Your task to perform on an android device: View the shopping cart on amazon.com. Image 0: 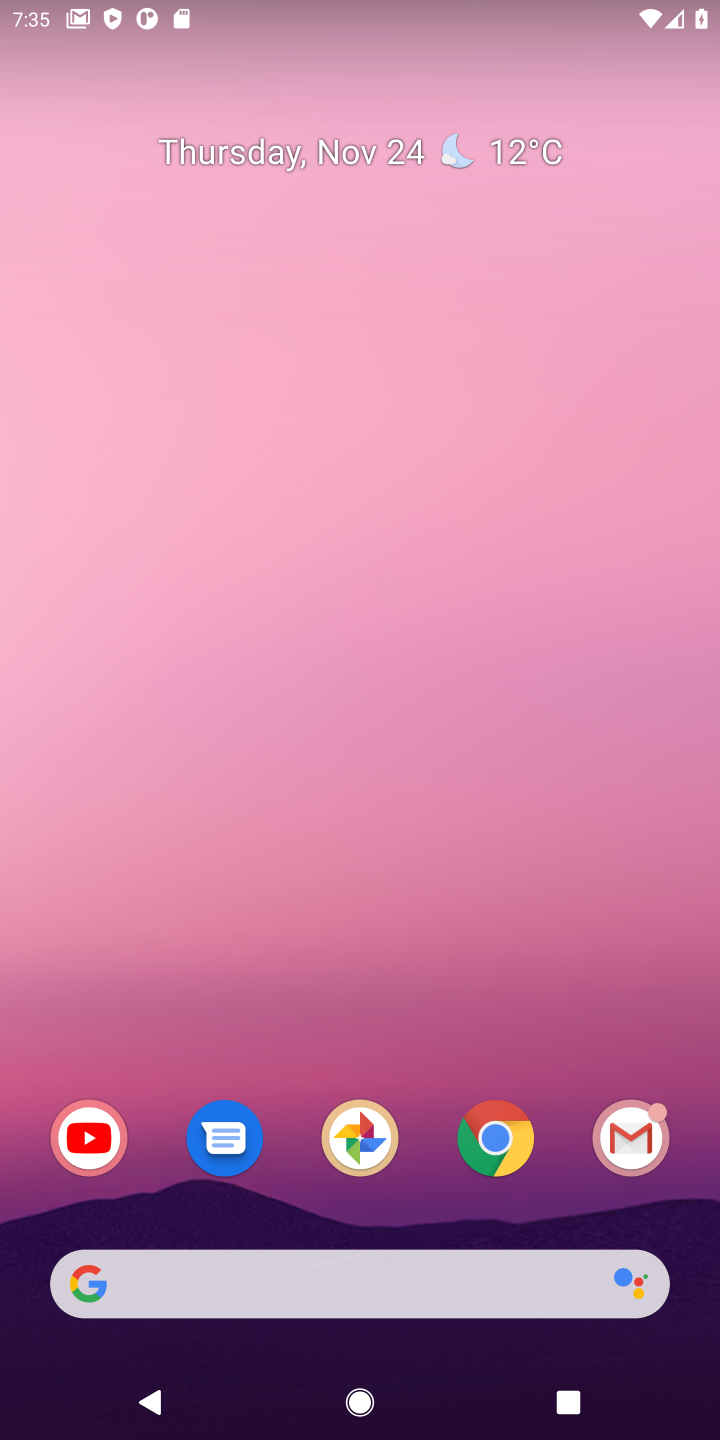
Step 0: click (493, 1126)
Your task to perform on an android device: View the shopping cart on amazon.com. Image 1: 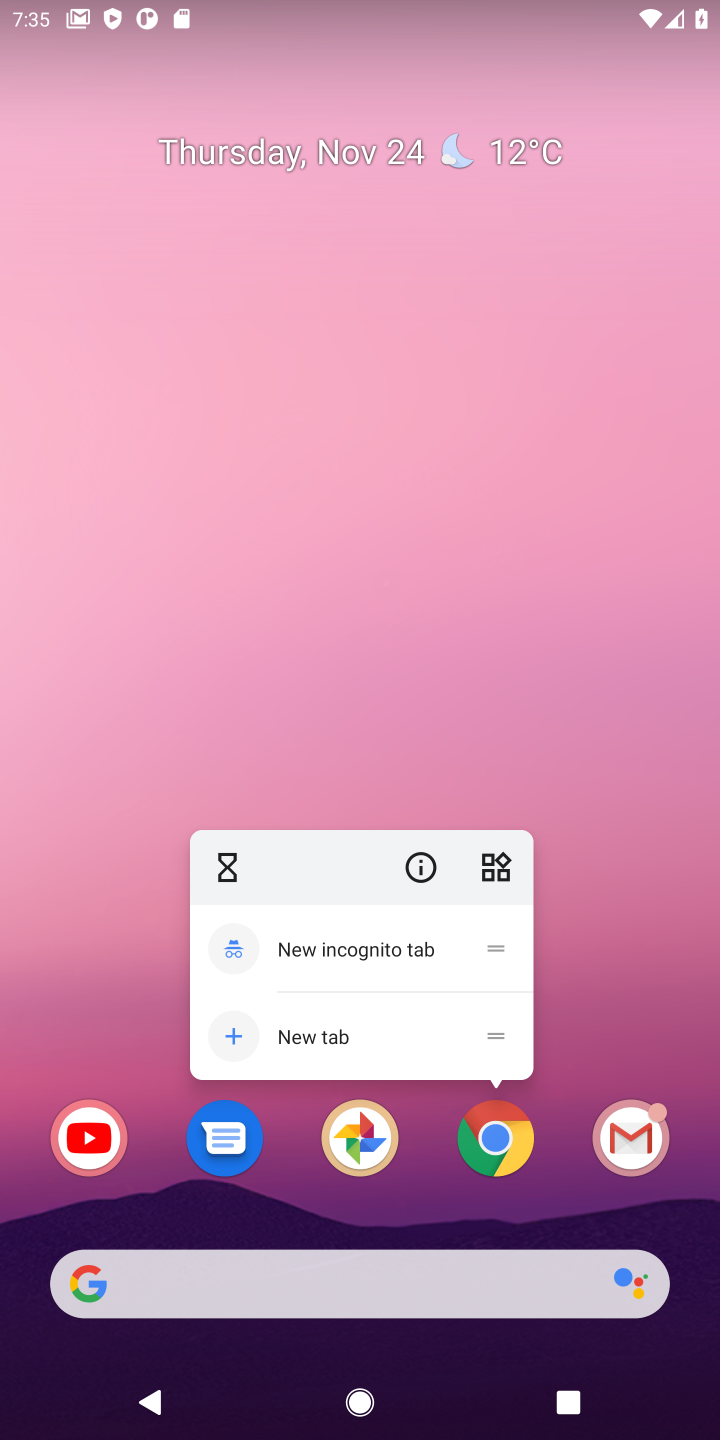
Step 1: click (493, 1126)
Your task to perform on an android device: View the shopping cart on amazon.com. Image 2: 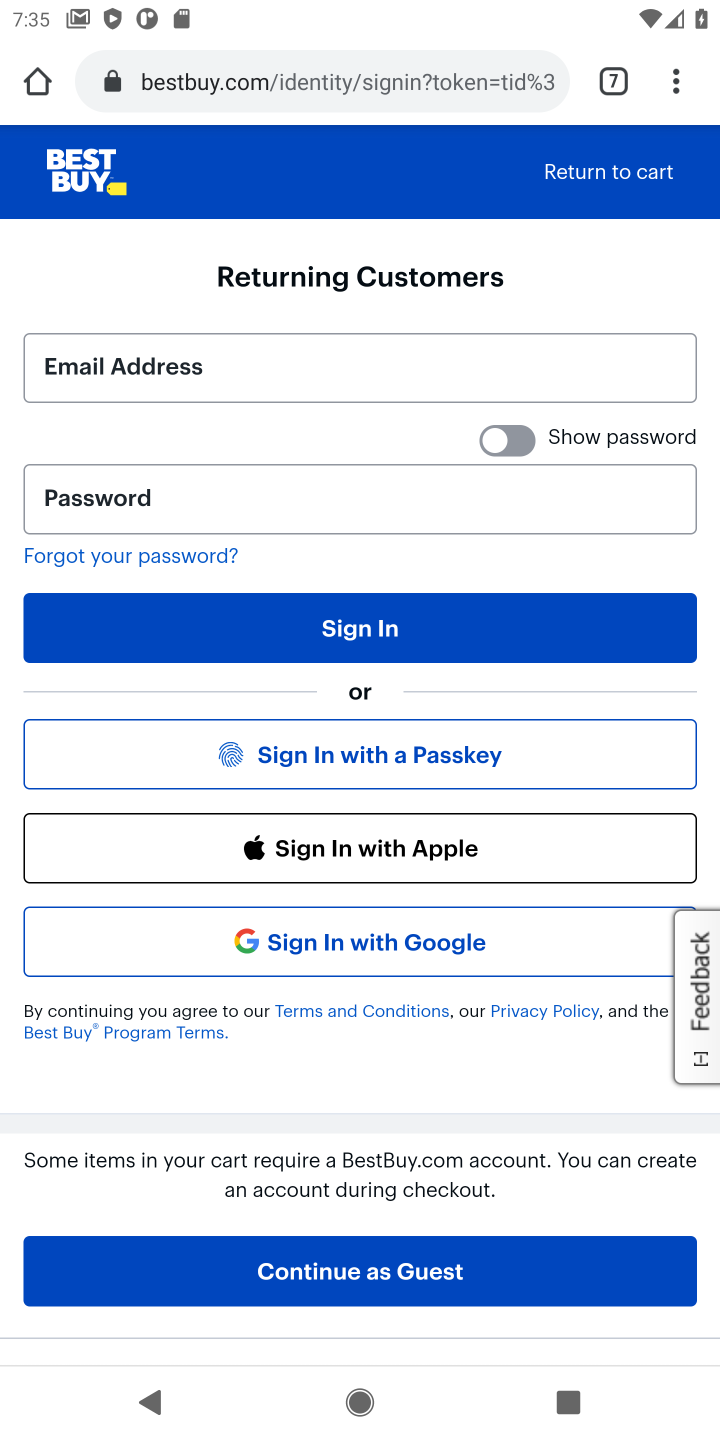
Step 2: click (610, 74)
Your task to perform on an android device: View the shopping cart on amazon.com. Image 3: 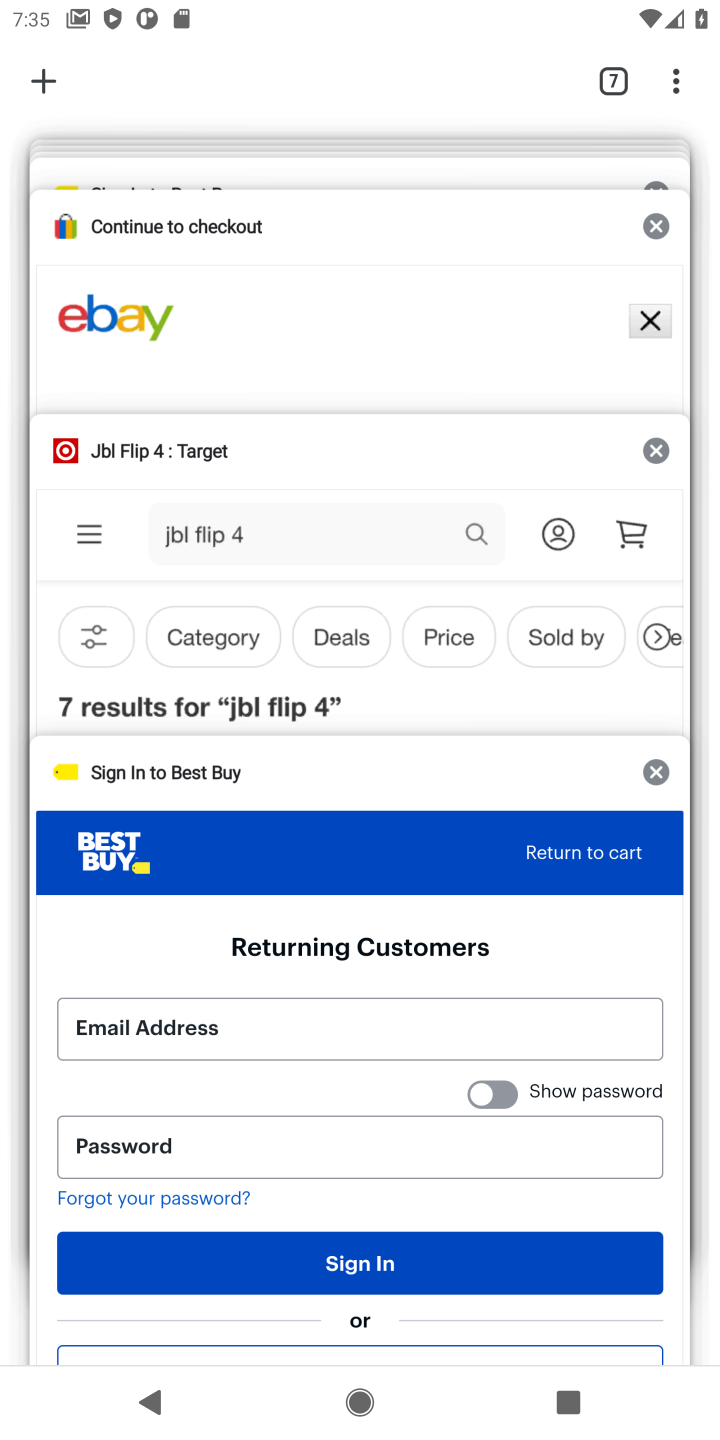
Step 3: click (37, 83)
Your task to perform on an android device: View the shopping cart on amazon.com. Image 4: 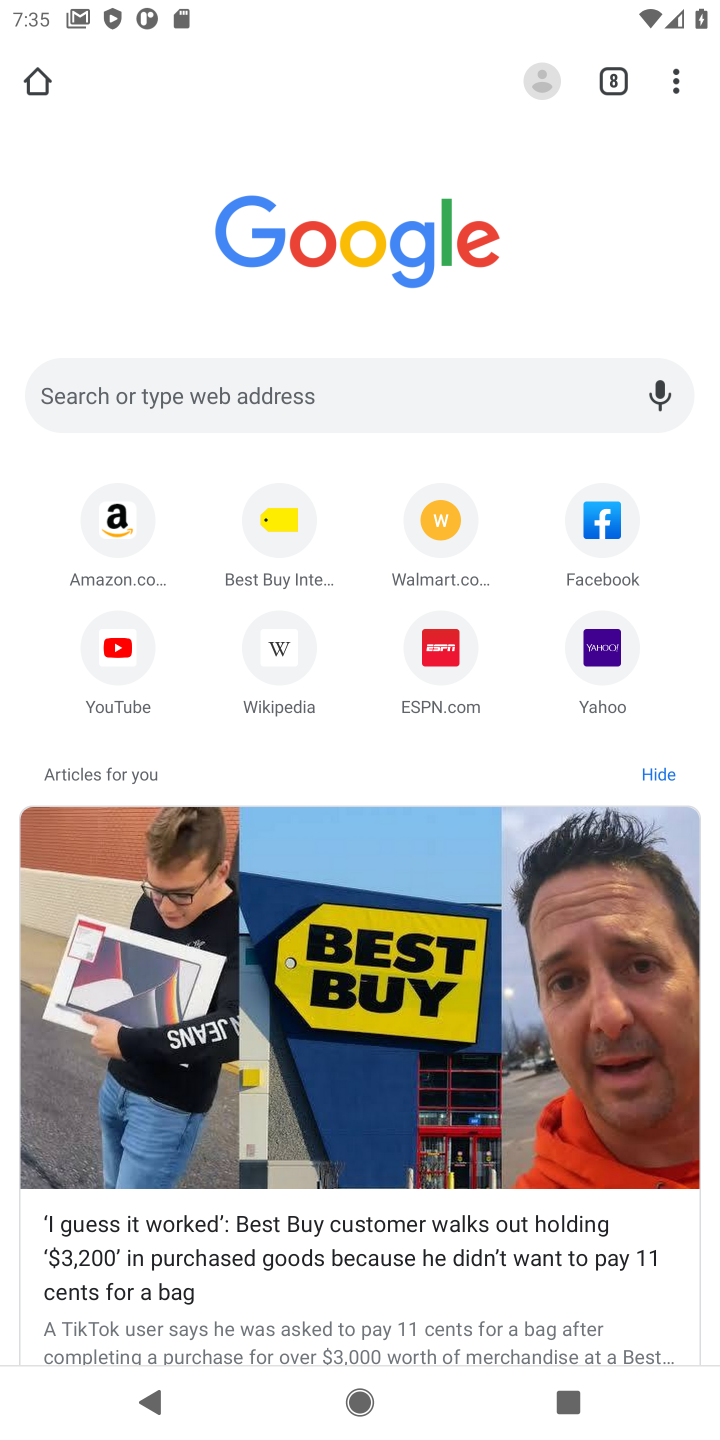
Step 4: click (109, 519)
Your task to perform on an android device: View the shopping cart on amazon.com. Image 5: 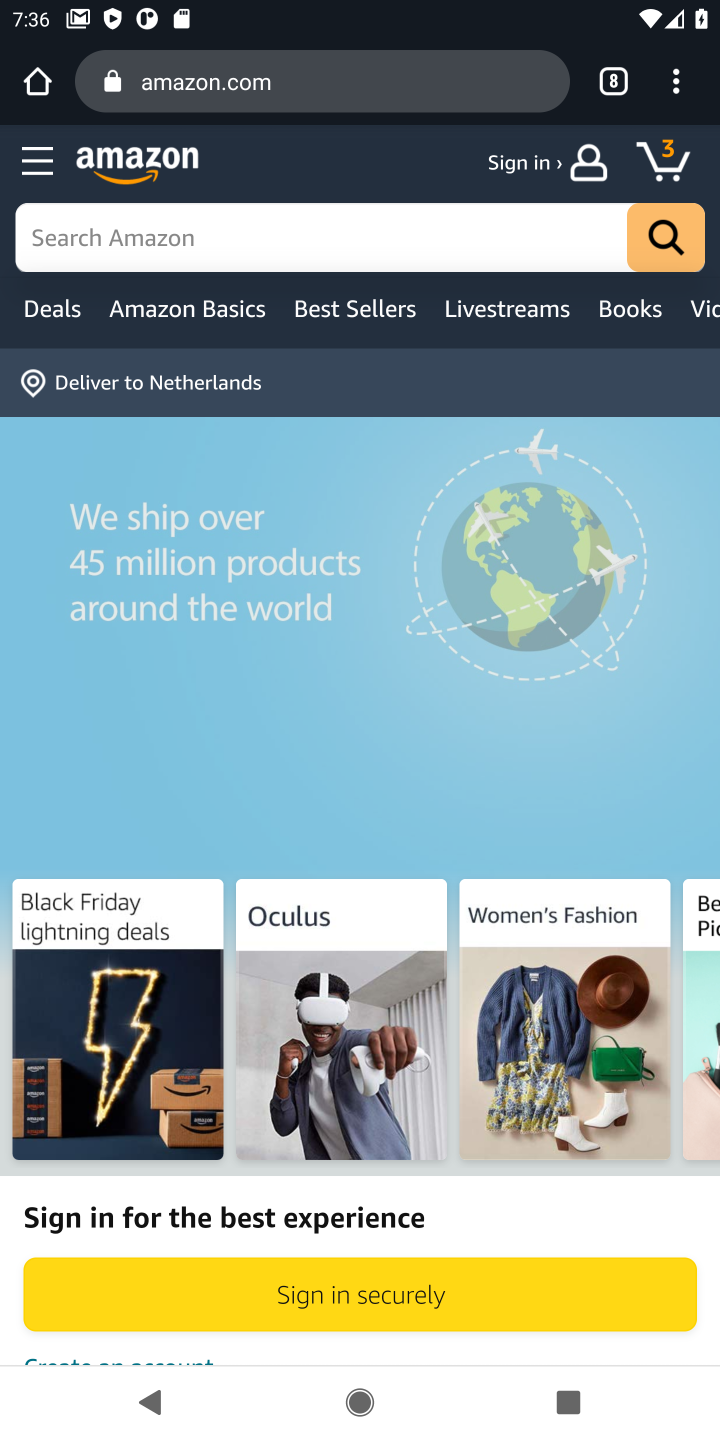
Step 5: click (675, 157)
Your task to perform on an android device: View the shopping cart on amazon.com. Image 6: 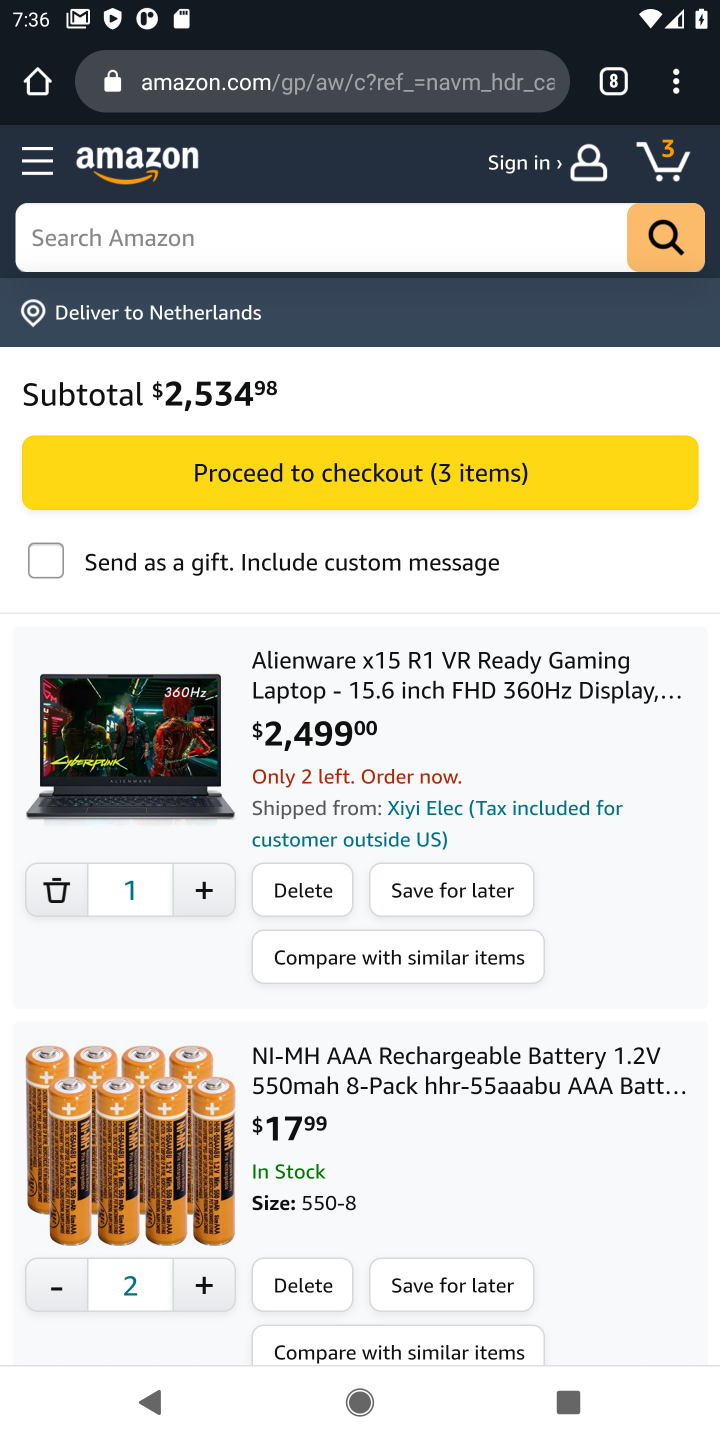
Step 6: task complete